Your task to perform on an android device: Look up the best rated headphones on Walmart. Image 0: 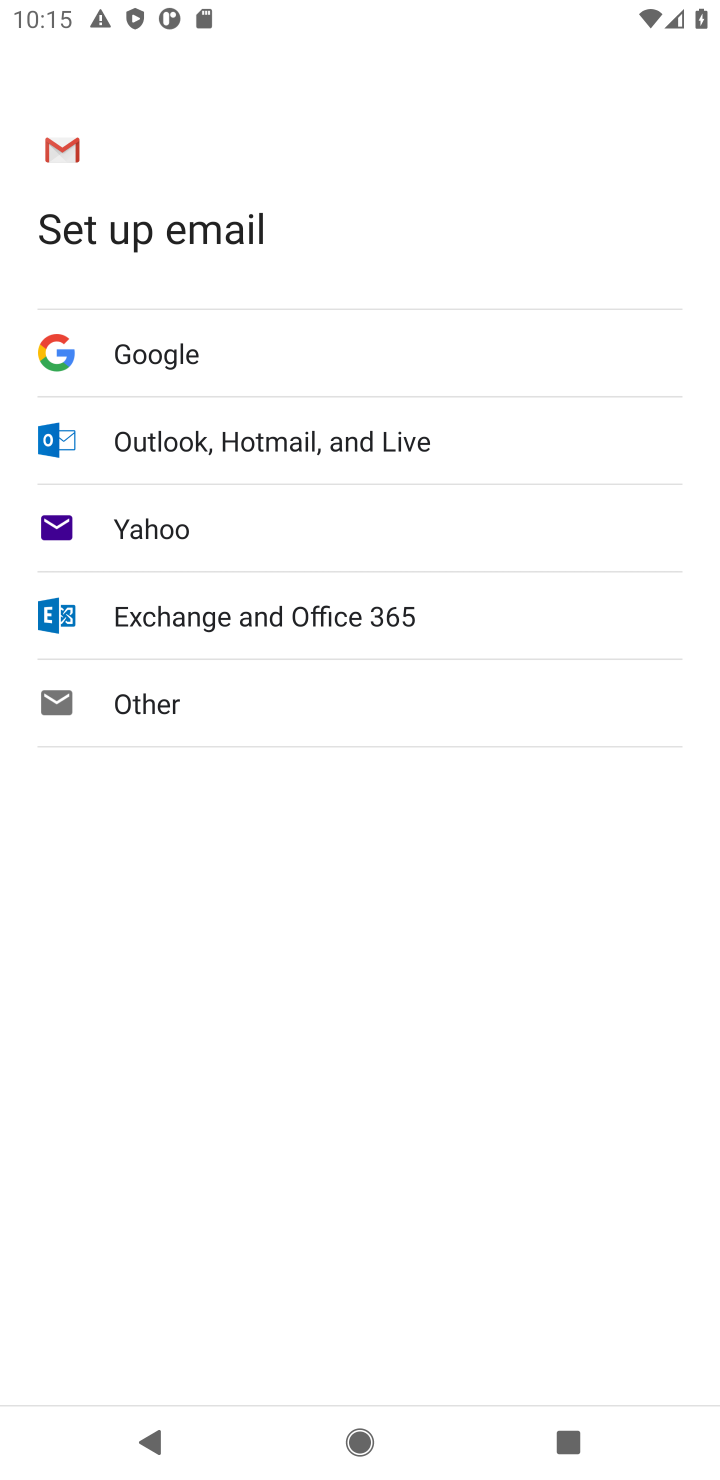
Step 0: press home button
Your task to perform on an android device: Look up the best rated headphones on Walmart. Image 1: 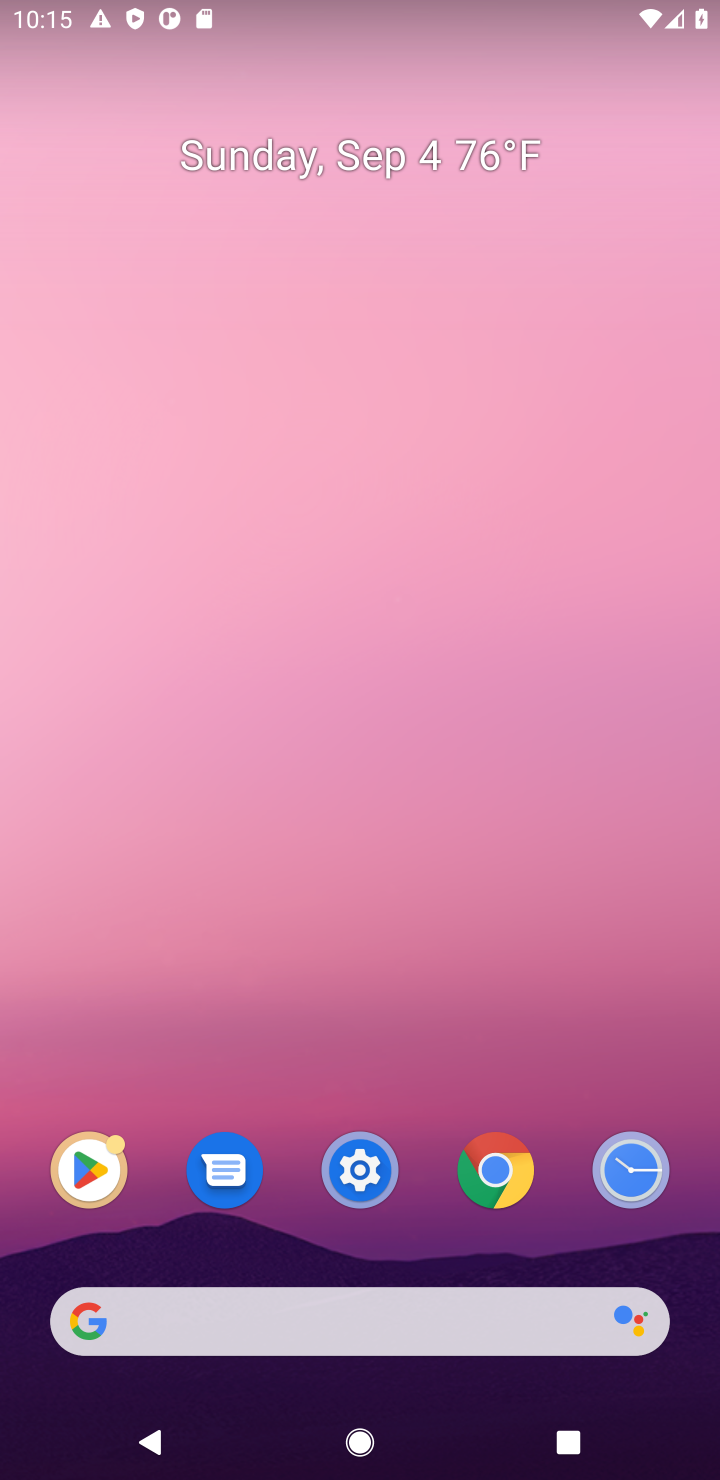
Step 1: click (347, 1322)
Your task to perform on an android device: Look up the best rated headphones on Walmart. Image 2: 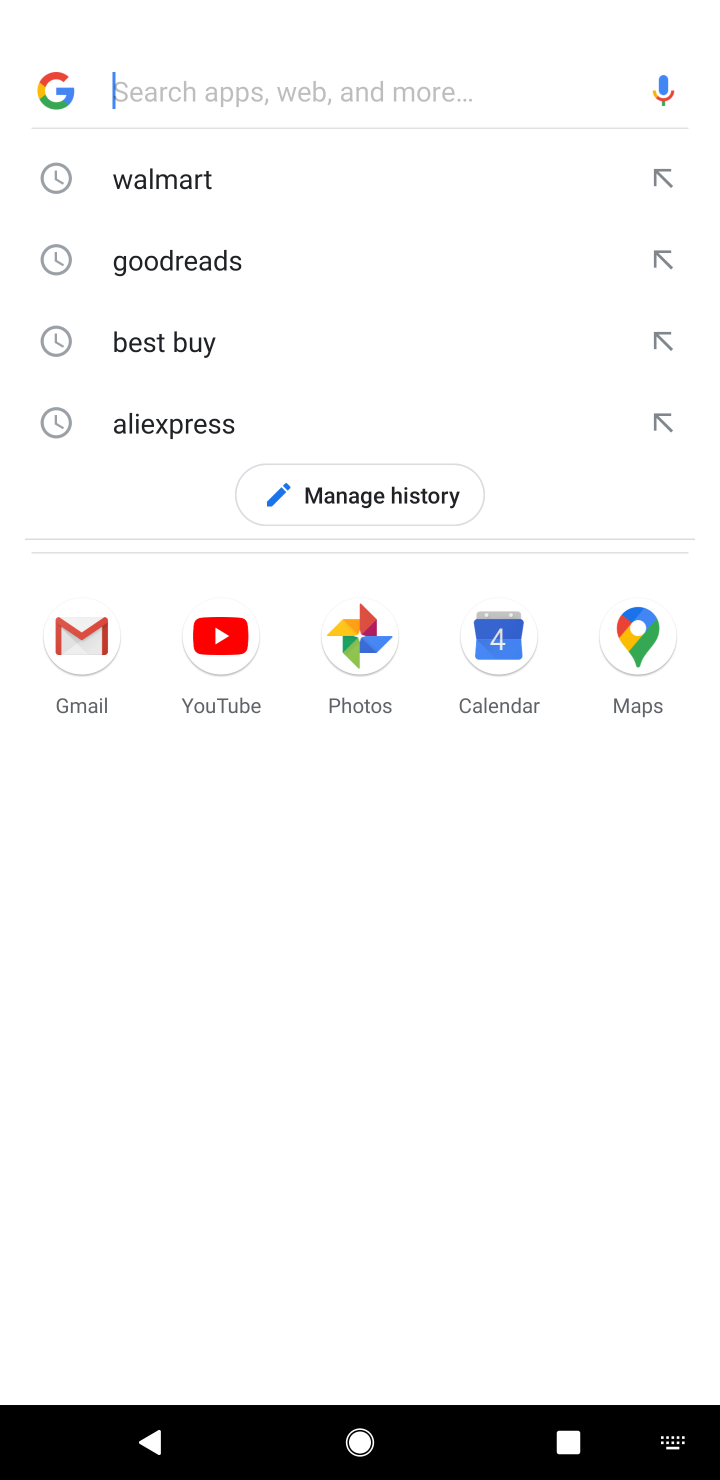
Step 2: click (259, 166)
Your task to perform on an android device: Look up the best rated headphones on Walmart. Image 3: 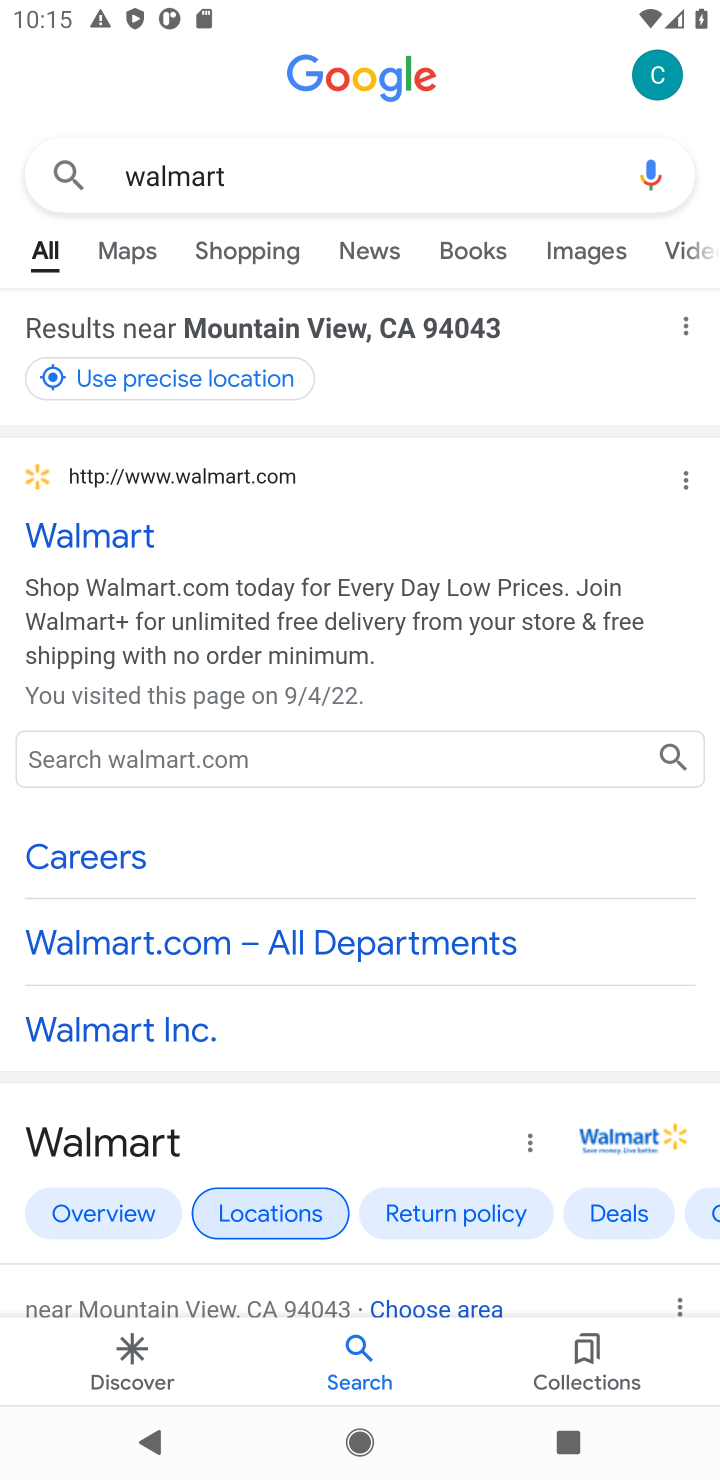
Step 3: click (124, 546)
Your task to perform on an android device: Look up the best rated headphones on Walmart. Image 4: 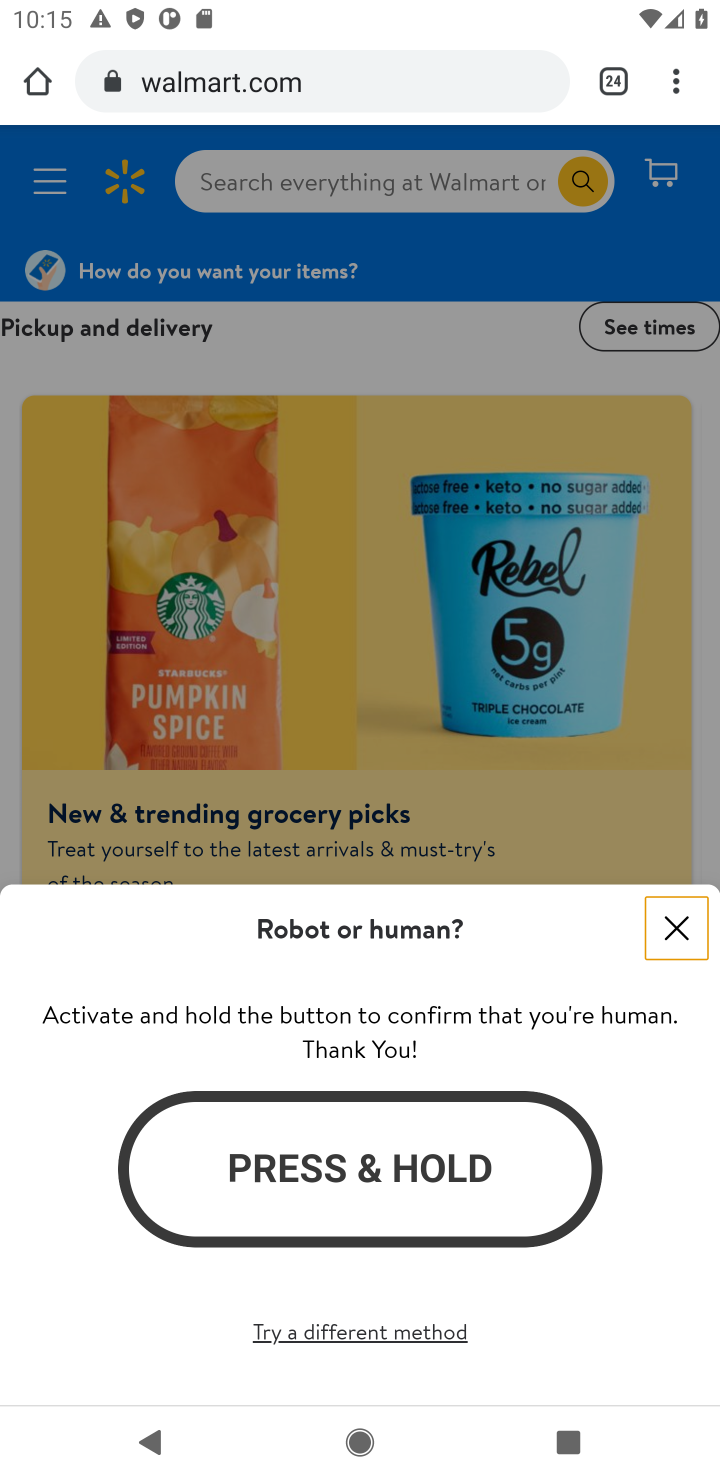
Step 4: click (654, 926)
Your task to perform on an android device: Look up the best rated headphones on Walmart. Image 5: 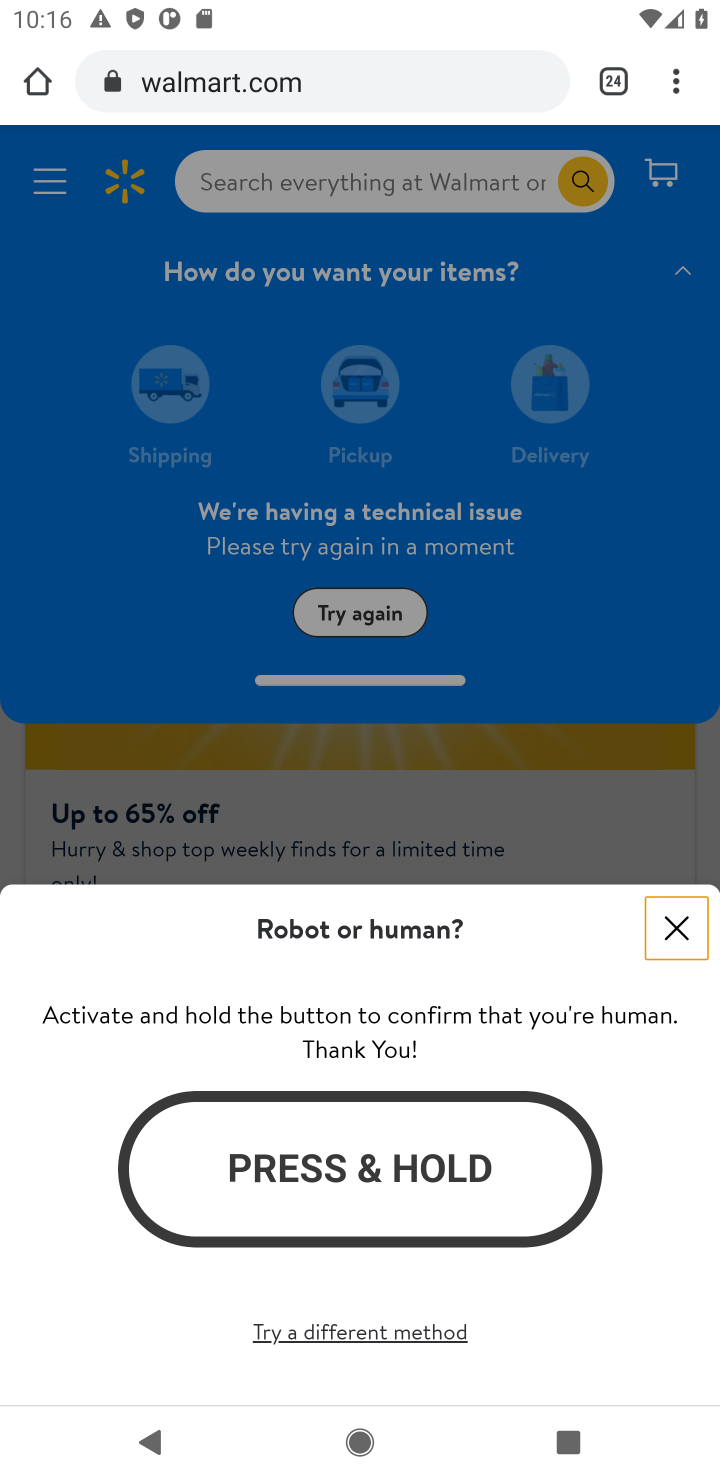
Step 5: click (677, 910)
Your task to perform on an android device: Look up the best rated headphones on Walmart. Image 6: 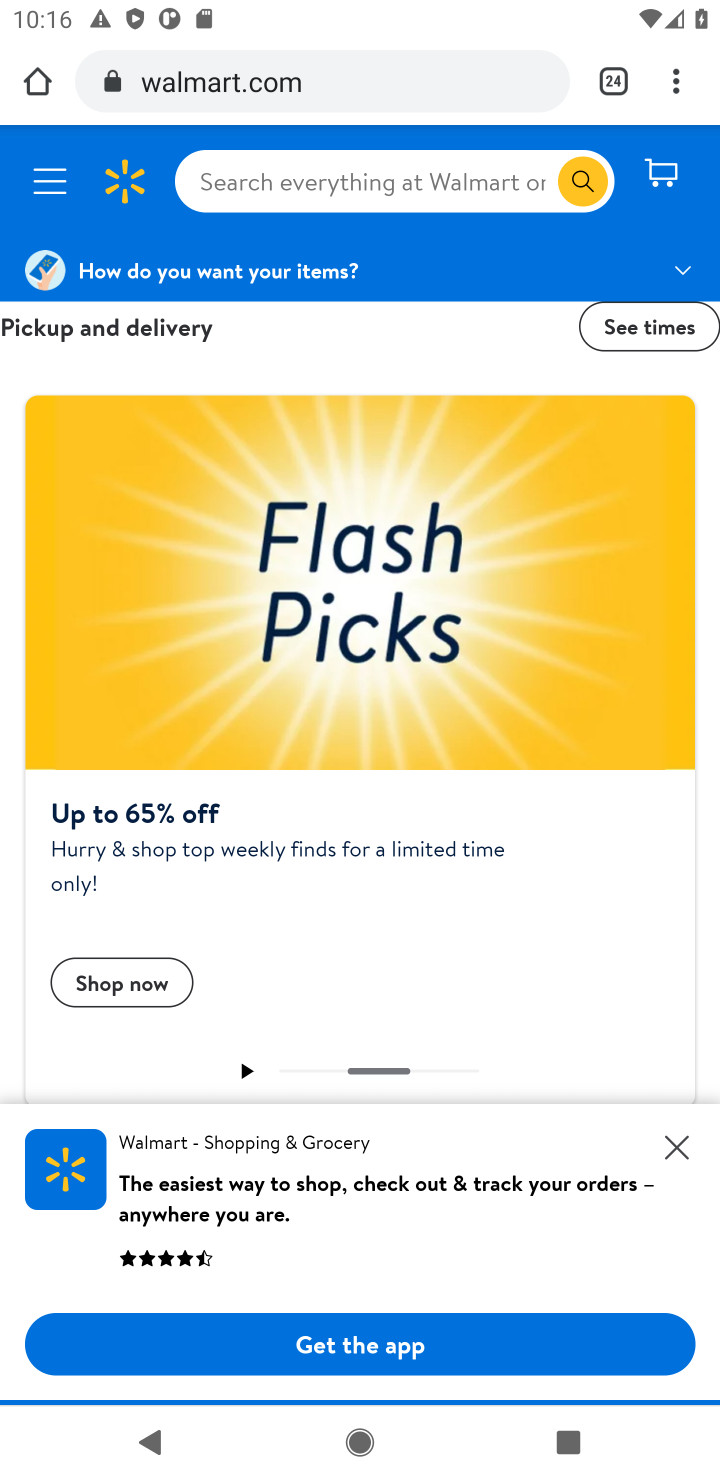
Step 6: click (337, 165)
Your task to perform on an android device: Look up the best rated headphones on Walmart. Image 7: 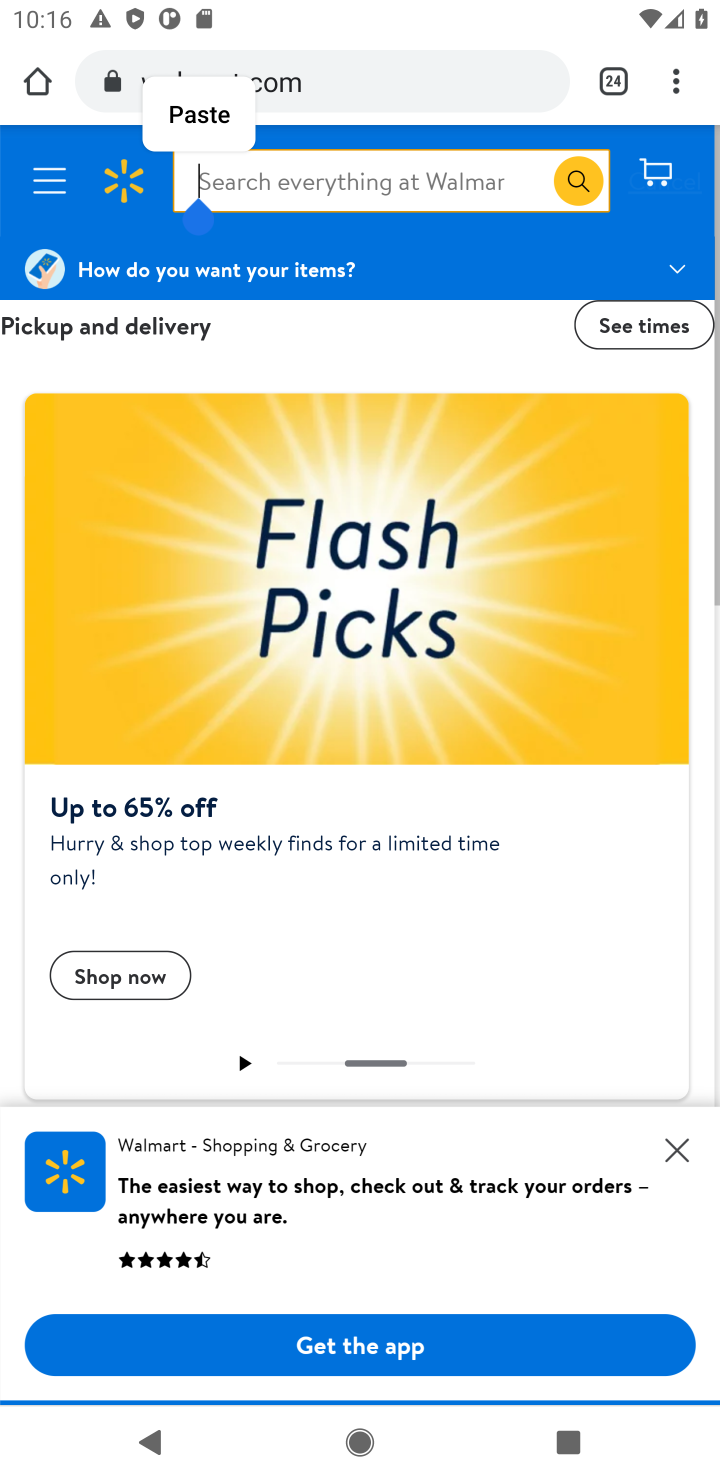
Step 7: click (337, 179)
Your task to perform on an android device: Look up the best rated headphones on Walmart. Image 8: 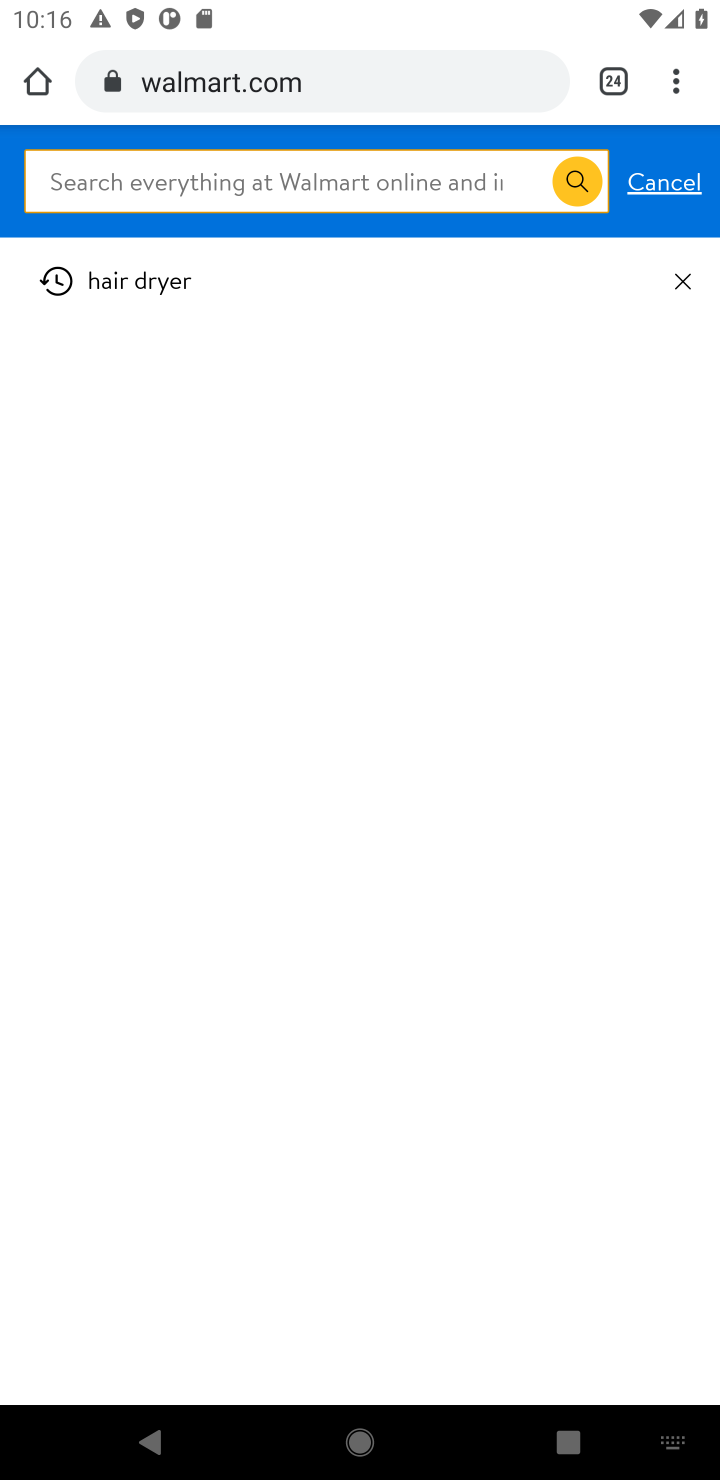
Step 8: type "headphones"
Your task to perform on an android device: Look up the best rated headphones on Walmart. Image 9: 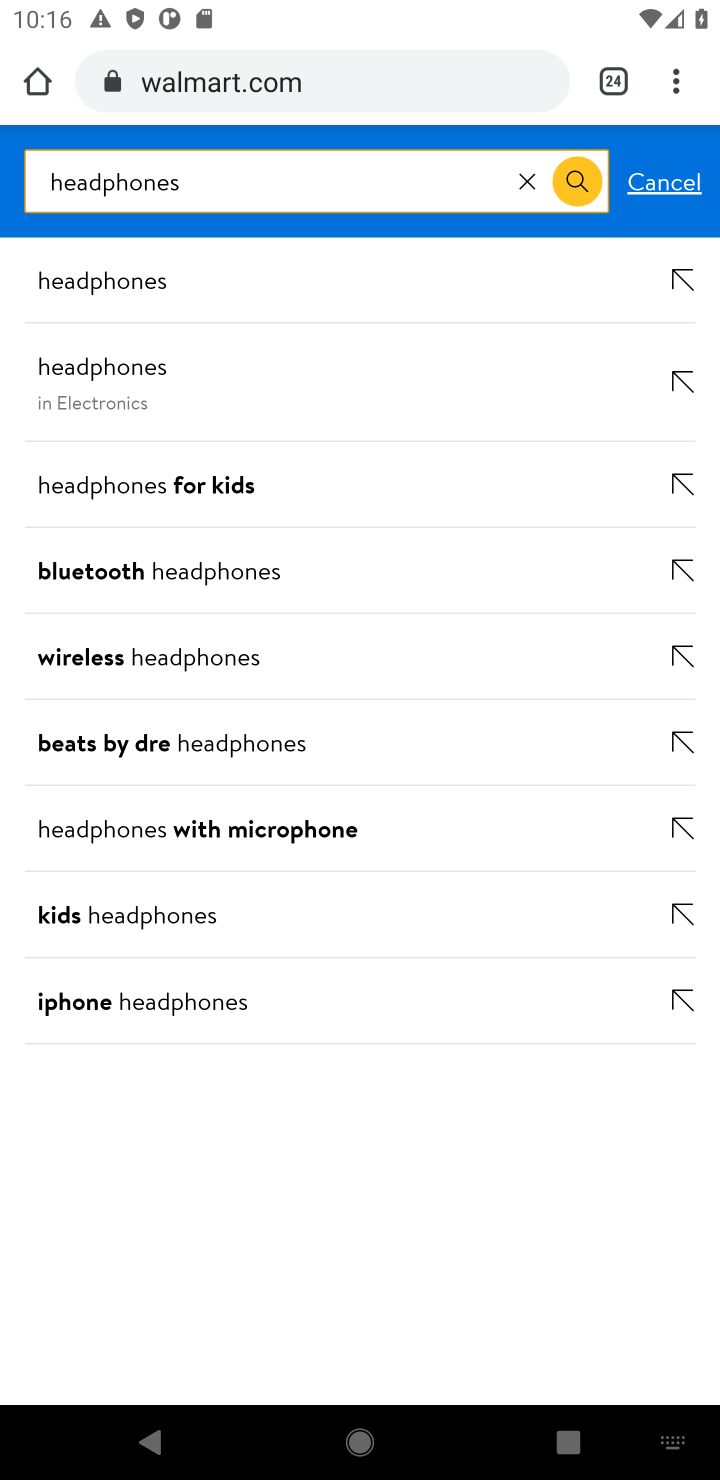
Step 9: click (221, 263)
Your task to perform on an android device: Look up the best rated headphones on Walmart. Image 10: 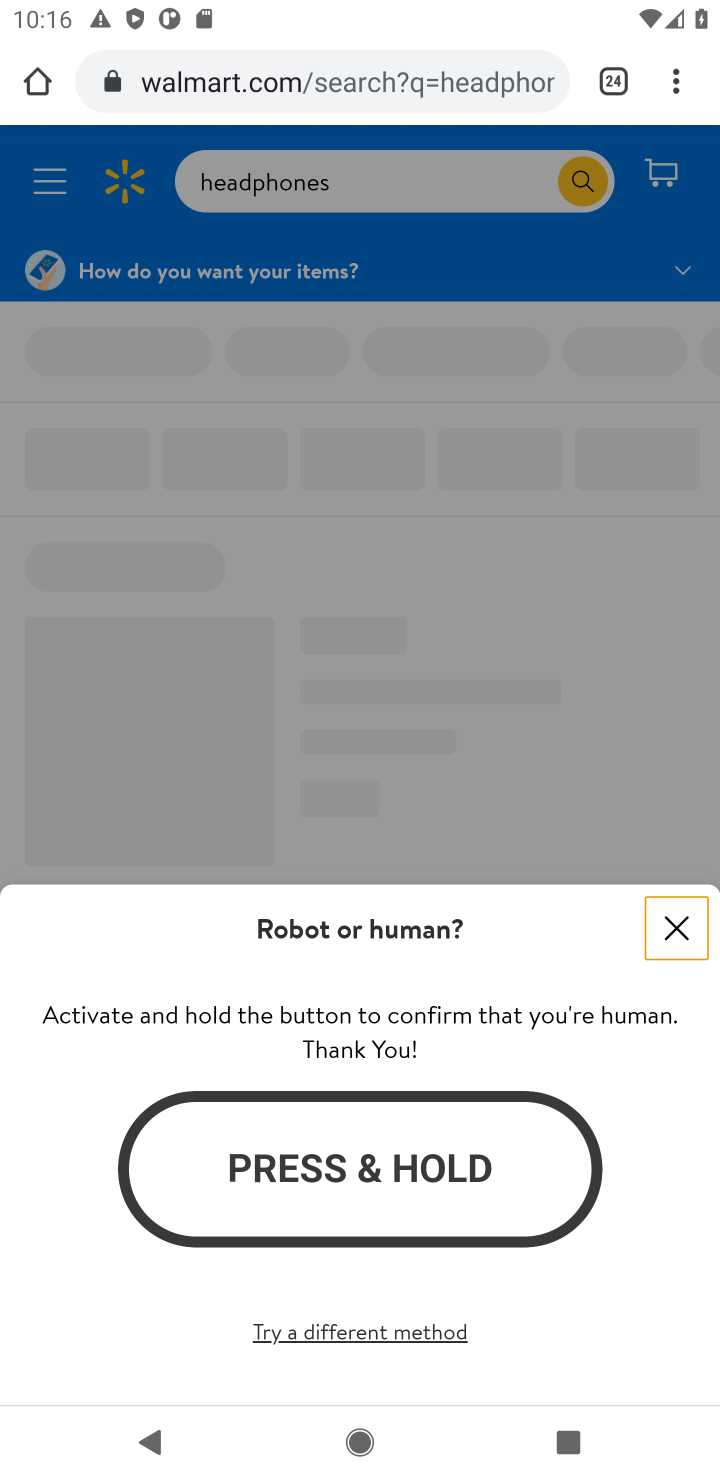
Step 10: task complete